Your task to perform on an android device: change timer sound Image 0: 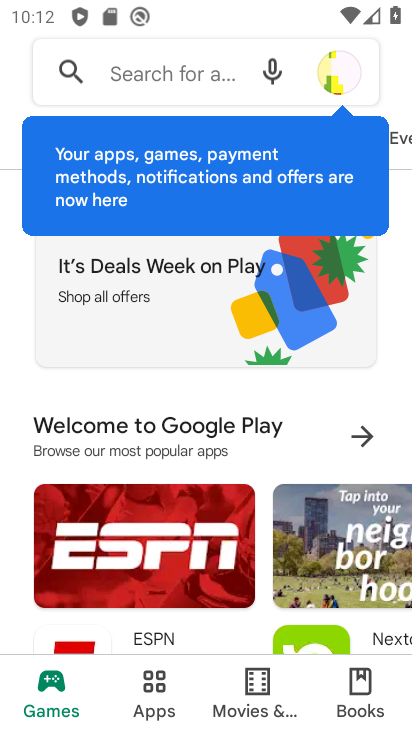
Step 0: press home button
Your task to perform on an android device: change timer sound Image 1: 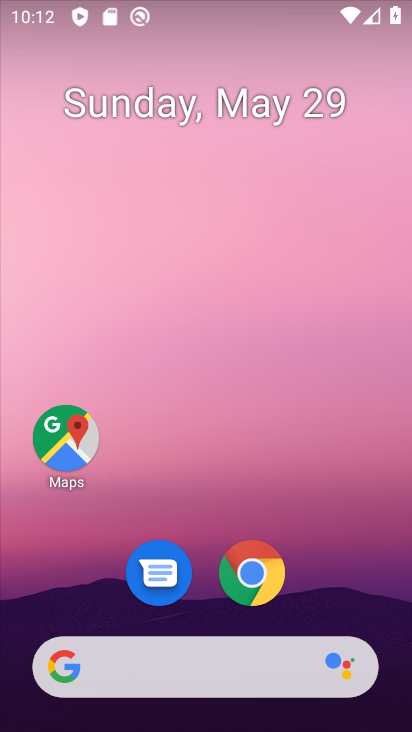
Step 1: drag from (67, 614) to (236, 123)
Your task to perform on an android device: change timer sound Image 2: 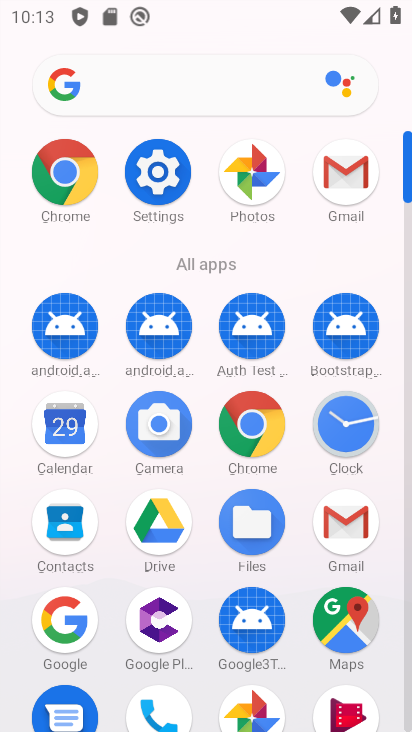
Step 2: click (355, 429)
Your task to perform on an android device: change timer sound Image 3: 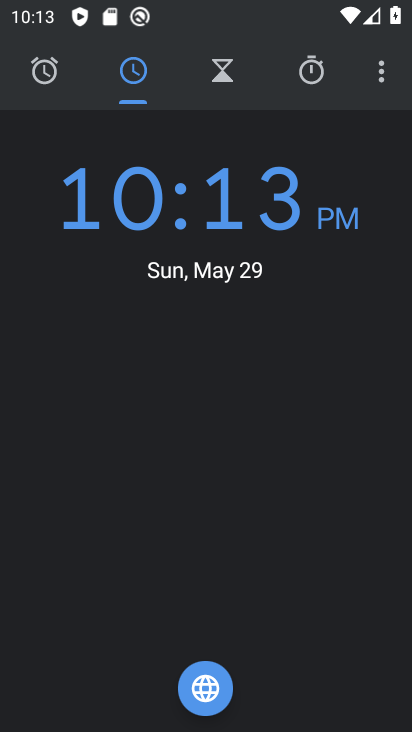
Step 3: click (387, 78)
Your task to perform on an android device: change timer sound Image 4: 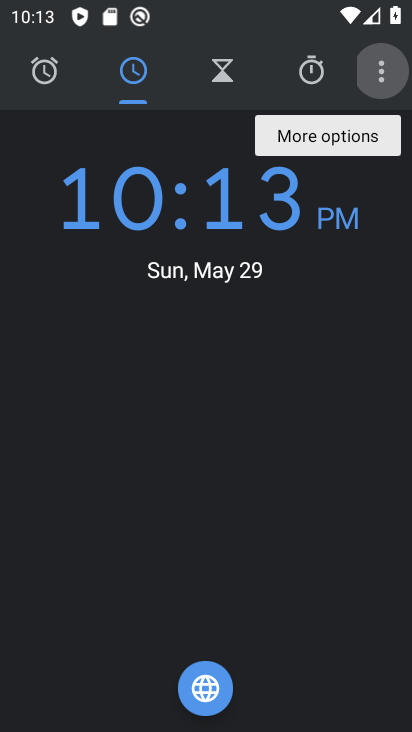
Step 4: click (389, 82)
Your task to perform on an android device: change timer sound Image 5: 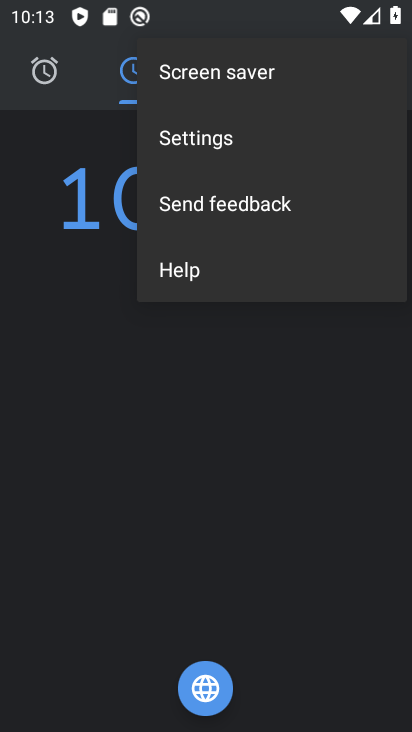
Step 5: click (347, 130)
Your task to perform on an android device: change timer sound Image 6: 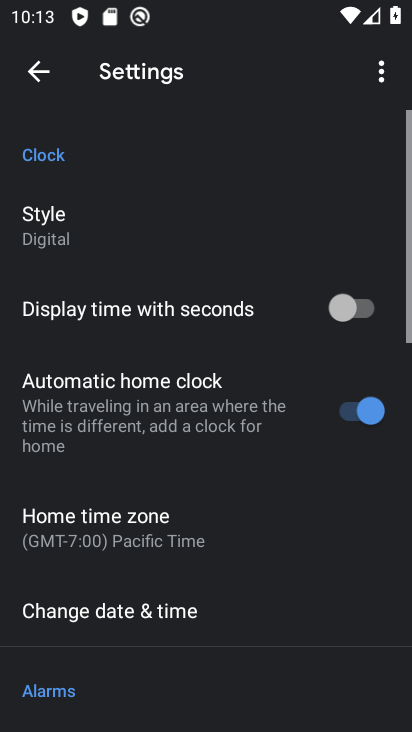
Step 6: drag from (206, 575) to (284, 162)
Your task to perform on an android device: change timer sound Image 7: 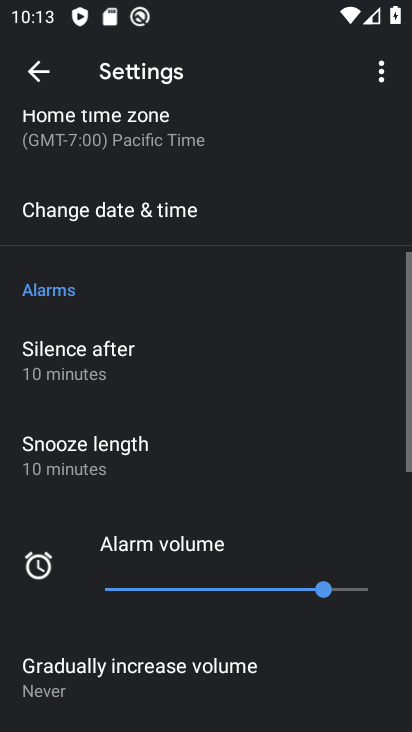
Step 7: drag from (151, 590) to (293, 152)
Your task to perform on an android device: change timer sound Image 8: 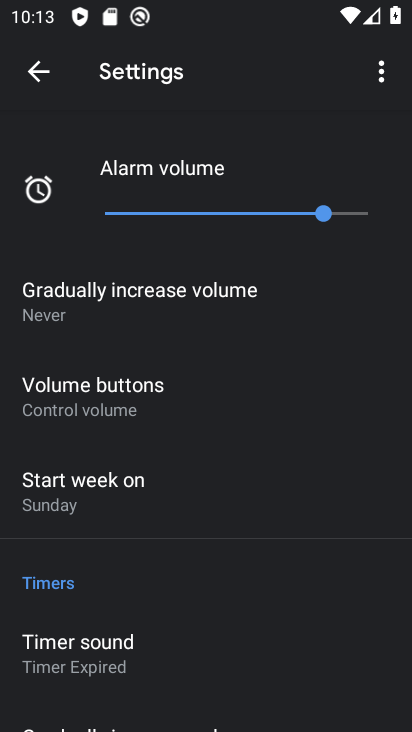
Step 8: click (170, 656)
Your task to perform on an android device: change timer sound Image 9: 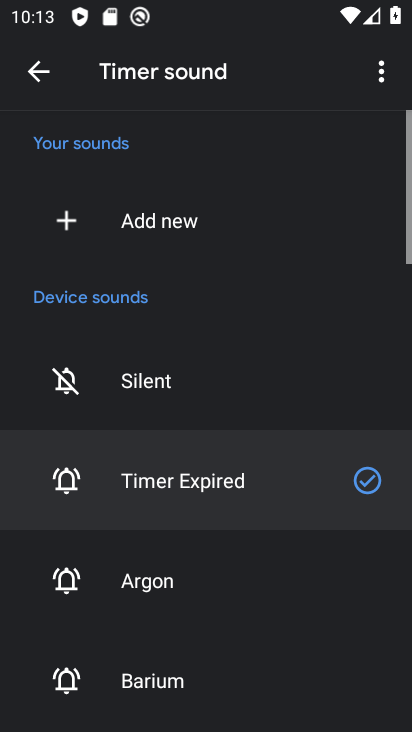
Step 9: click (230, 687)
Your task to perform on an android device: change timer sound Image 10: 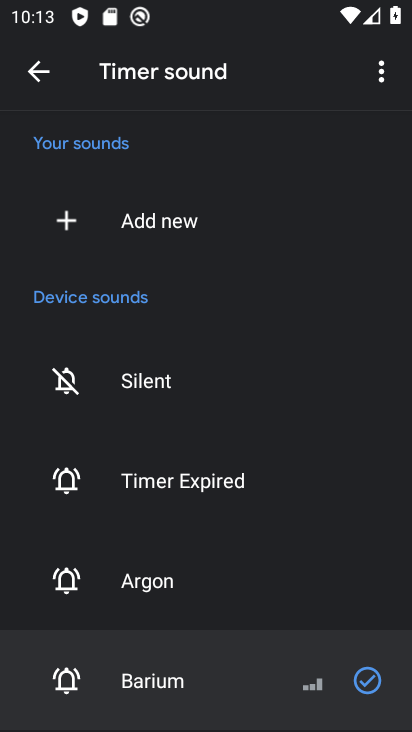
Step 10: task complete